Your task to perform on an android device: Open location settings Image 0: 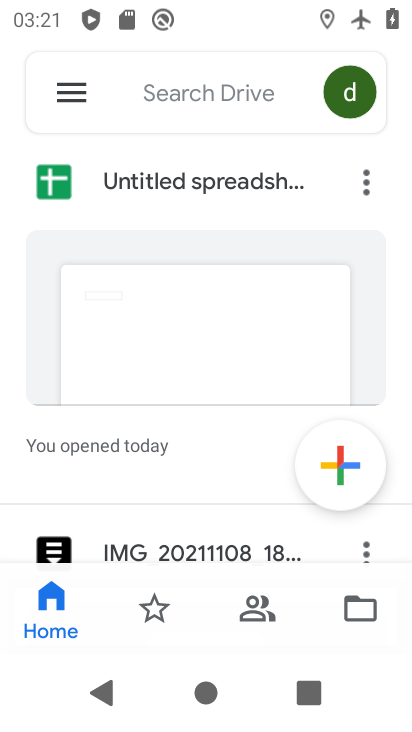
Step 0: drag from (293, 532) to (296, 420)
Your task to perform on an android device: Open location settings Image 1: 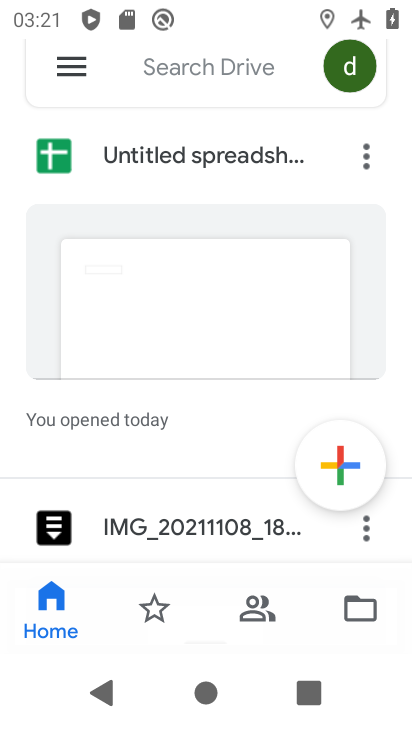
Step 1: press home button
Your task to perform on an android device: Open location settings Image 2: 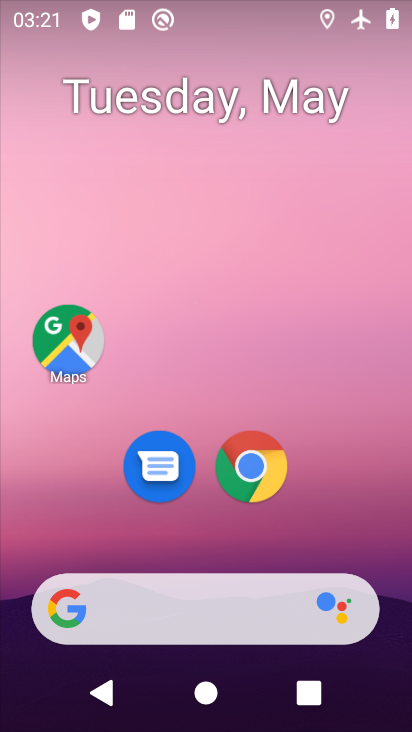
Step 2: drag from (314, 508) to (322, 246)
Your task to perform on an android device: Open location settings Image 3: 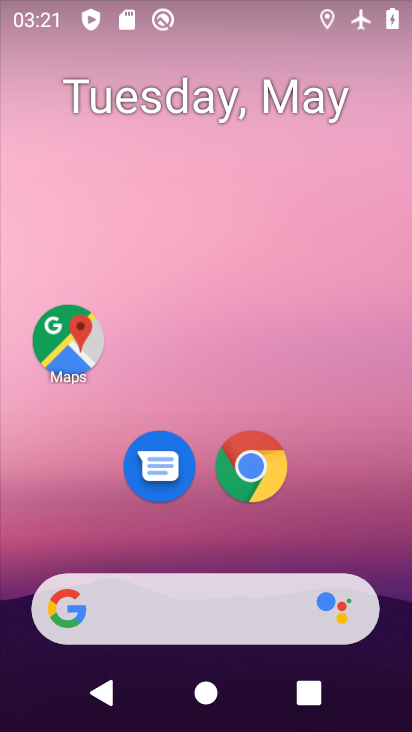
Step 3: drag from (335, 520) to (322, 289)
Your task to perform on an android device: Open location settings Image 4: 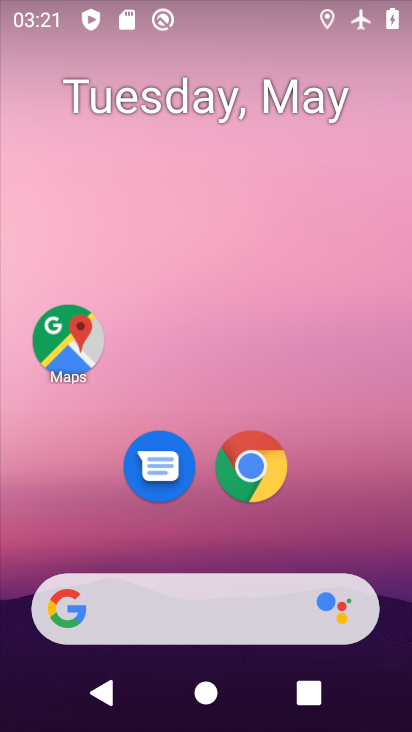
Step 4: drag from (332, 549) to (318, 343)
Your task to perform on an android device: Open location settings Image 5: 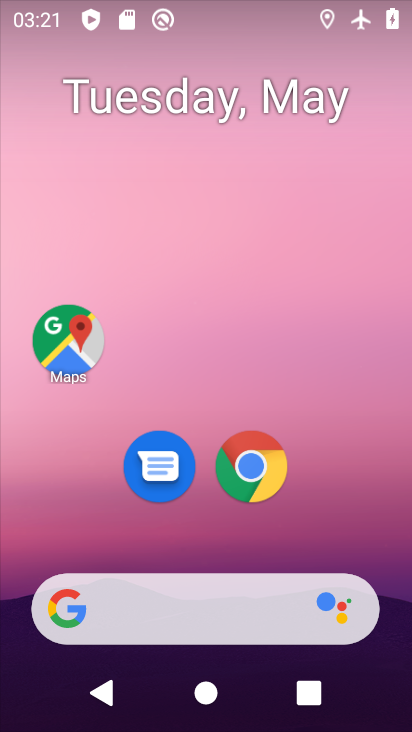
Step 5: drag from (320, 514) to (331, 310)
Your task to perform on an android device: Open location settings Image 6: 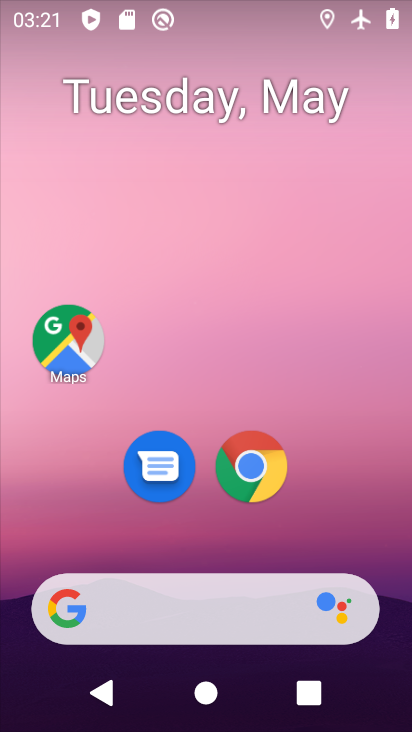
Step 6: drag from (321, 523) to (319, 246)
Your task to perform on an android device: Open location settings Image 7: 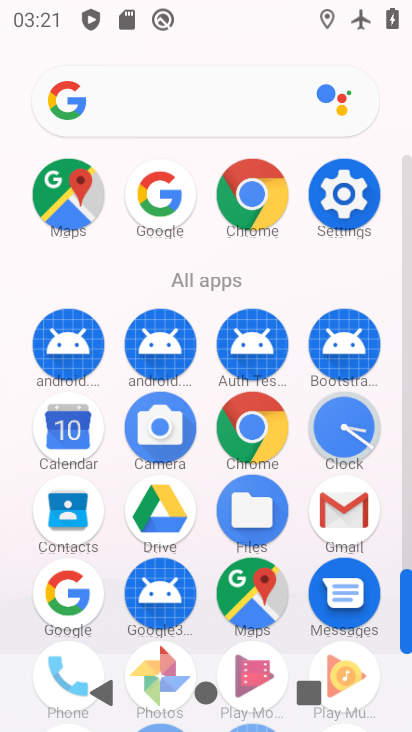
Step 7: click (344, 208)
Your task to perform on an android device: Open location settings Image 8: 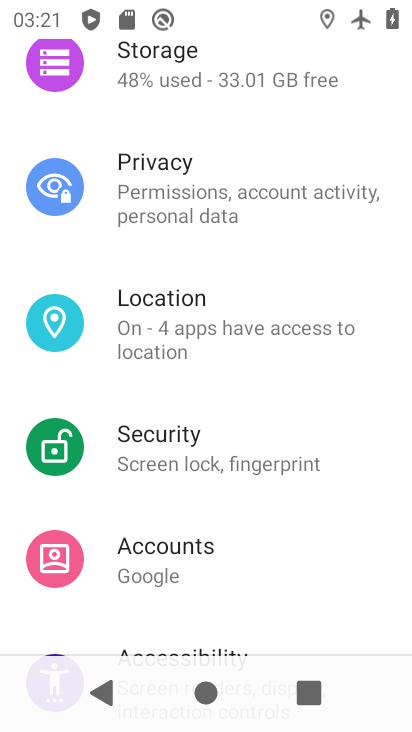
Step 8: click (218, 325)
Your task to perform on an android device: Open location settings Image 9: 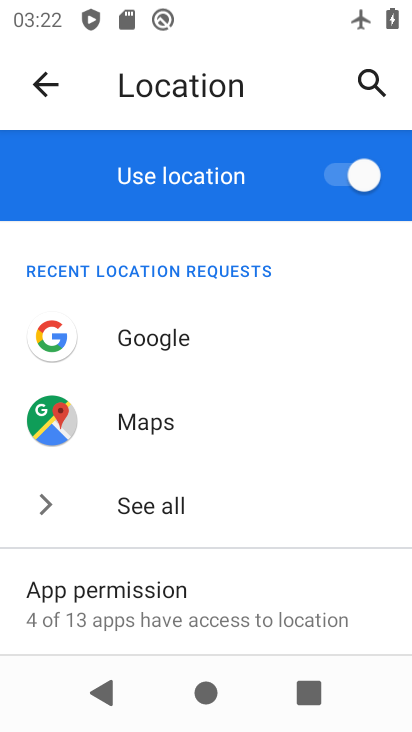
Step 9: task complete